Your task to perform on an android device: Search for Italian restaurants on Maps Image 0: 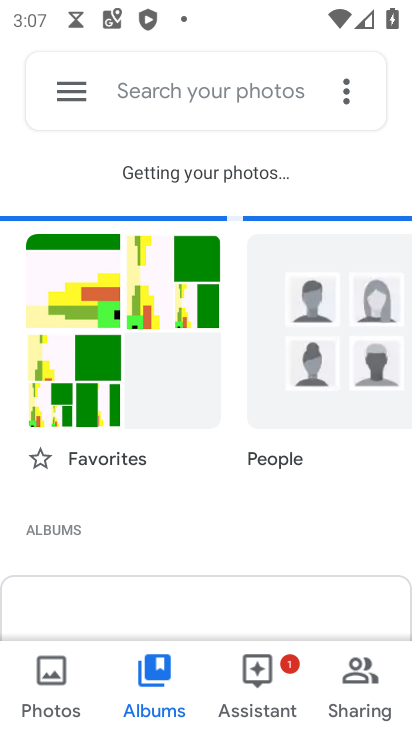
Step 0: press home button
Your task to perform on an android device: Search for Italian restaurants on Maps Image 1: 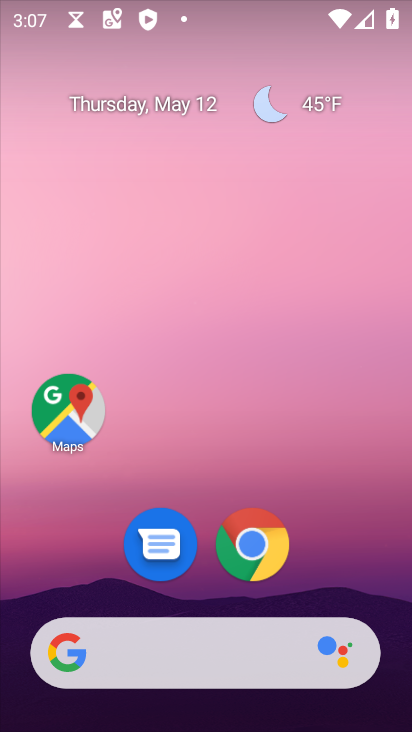
Step 1: click (58, 406)
Your task to perform on an android device: Search for Italian restaurants on Maps Image 2: 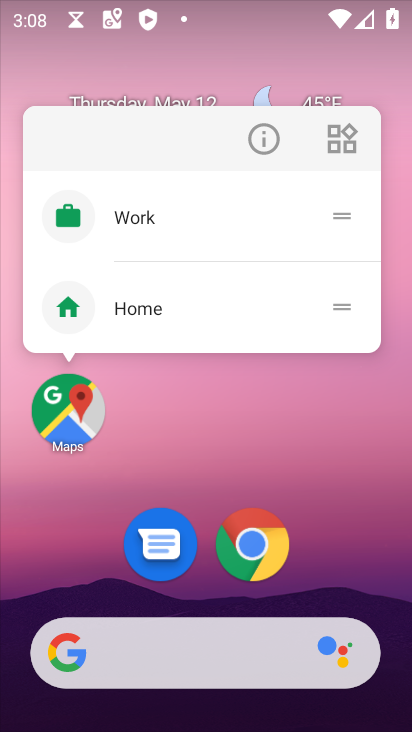
Step 2: click (61, 408)
Your task to perform on an android device: Search for Italian restaurants on Maps Image 3: 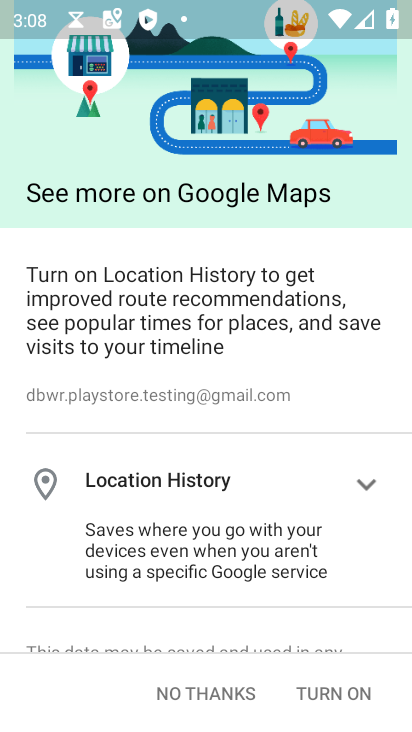
Step 3: task complete